Your task to perform on an android device: Open calendar and show me the first week of next month Image 0: 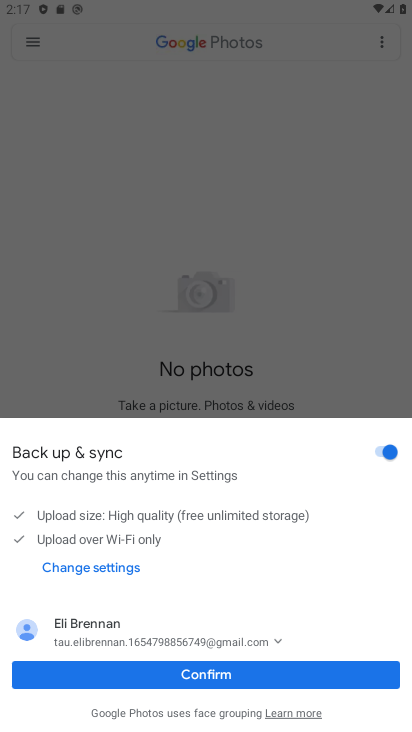
Step 0: press home button
Your task to perform on an android device: Open calendar and show me the first week of next month Image 1: 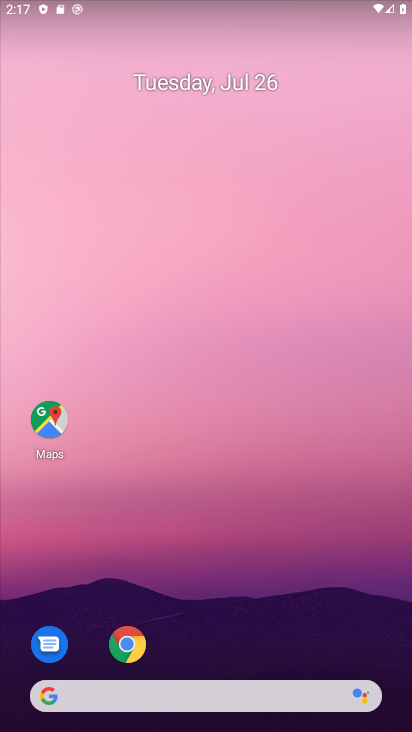
Step 1: drag from (299, 579) to (286, 125)
Your task to perform on an android device: Open calendar and show me the first week of next month Image 2: 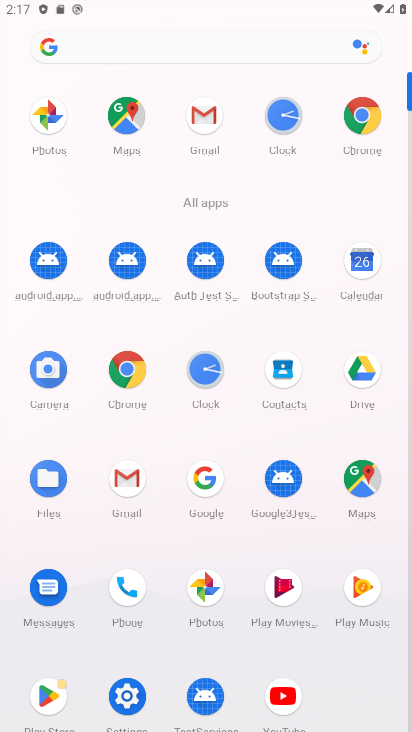
Step 2: click (358, 269)
Your task to perform on an android device: Open calendar and show me the first week of next month Image 3: 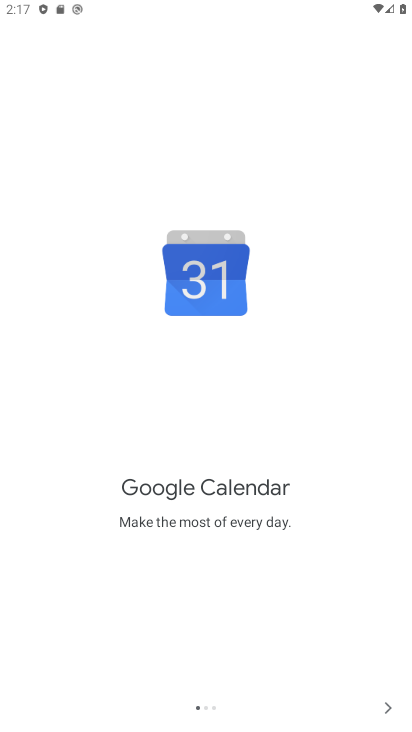
Step 3: click (386, 710)
Your task to perform on an android device: Open calendar and show me the first week of next month Image 4: 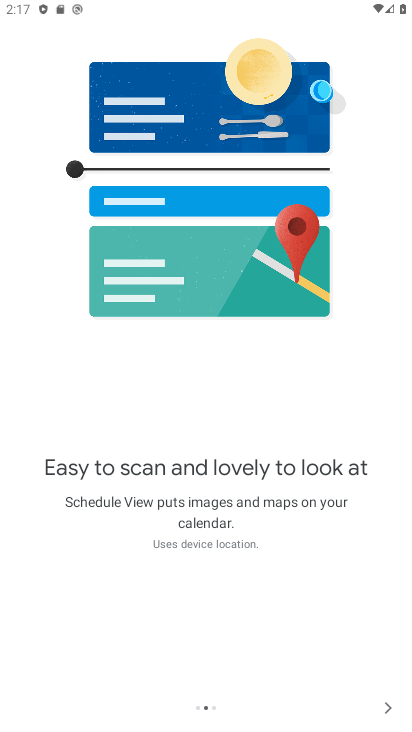
Step 4: click (386, 710)
Your task to perform on an android device: Open calendar and show me the first week of next month Image 5: 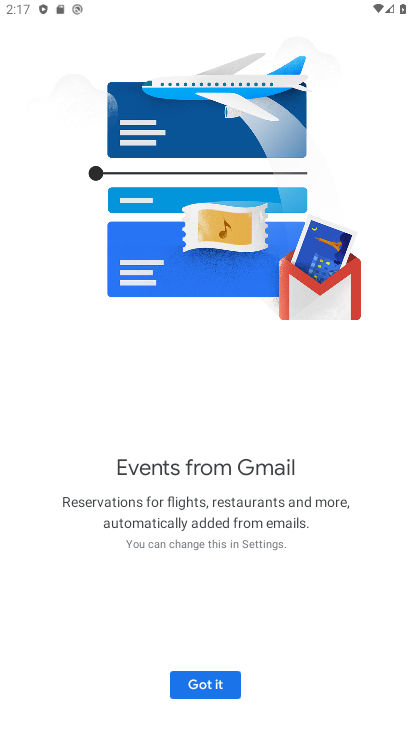
Step 5: click (202, 688)
Your task to perform on an android device: Open calendar and show me the first week of next month Image 6: 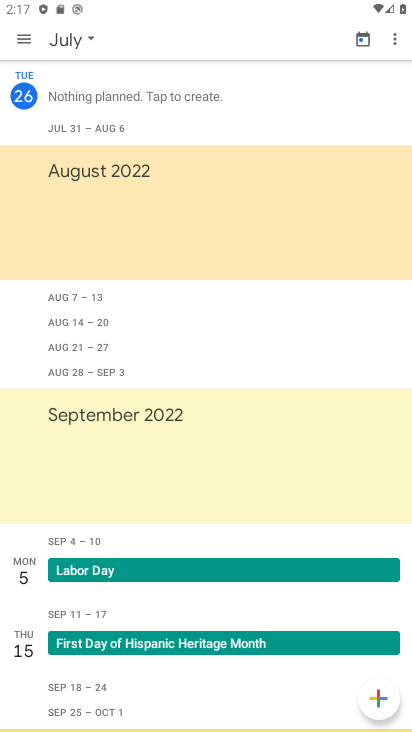
Step 6: click (29, 38)
Your task to perform on an android device: Open calendar and show me the first week of next month Image 7: 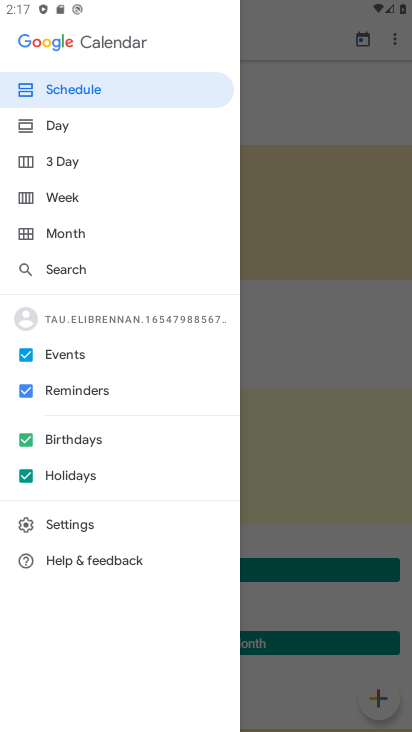
Step 7: click (66, 202)
Your task to perform on an android device: Open calendar and show me the first week of next month Image 8: 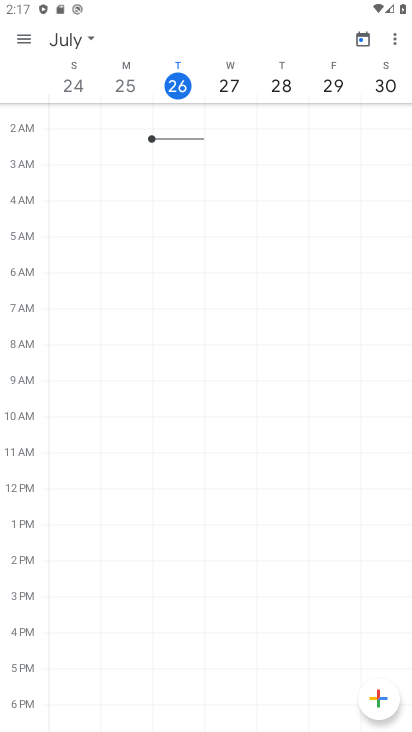
Step 8: task complete